Your task to perform on an android device: refresh tabs in the chrome app Image 0: 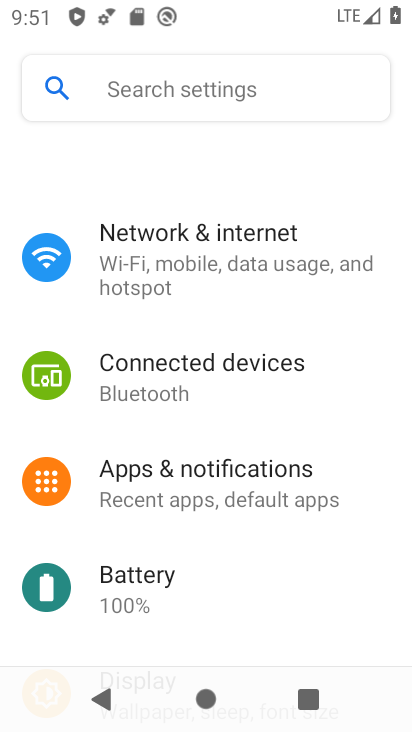
Step 0: press home button
Your task to perform on an android device: refresh tabs in the chrome app Image 1: 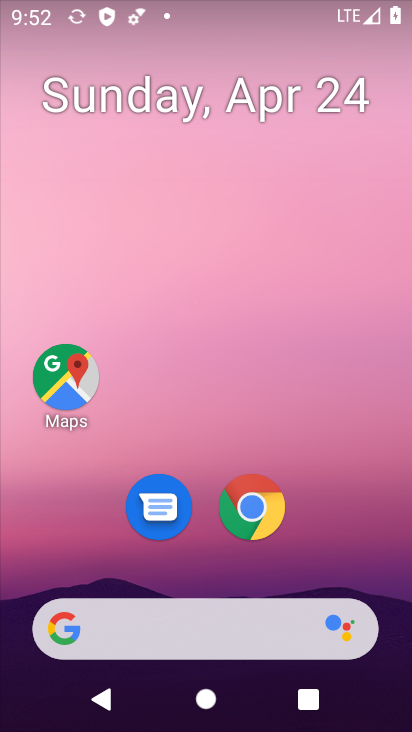
Step 1: click (251, 505)
Your task to perform on an android device: refresh tabs in the chrome app Image 2: 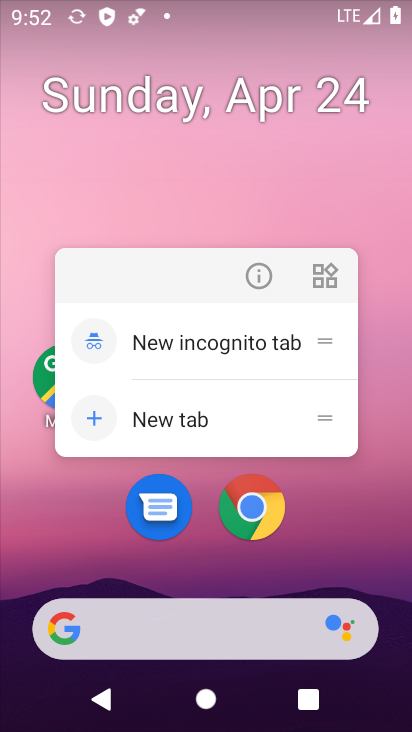
Step 2: click (253, 275)
Your task to perform on an android device: refresh tabs in the chrome app Image 3: 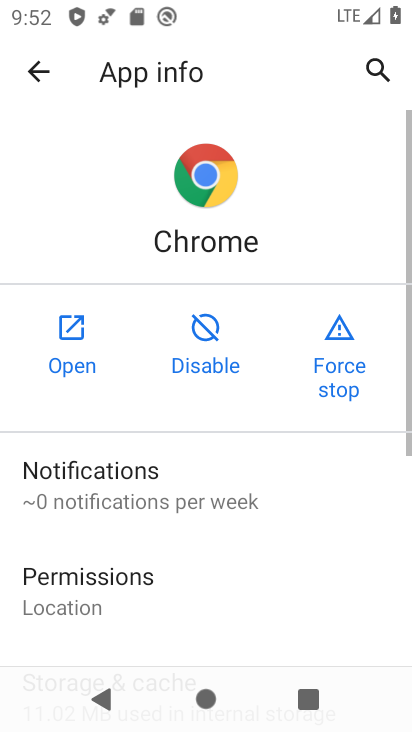
Step 3: click (94, 342)
Your task to perform on an android device: refresh tabs in the chrome app Image 4: 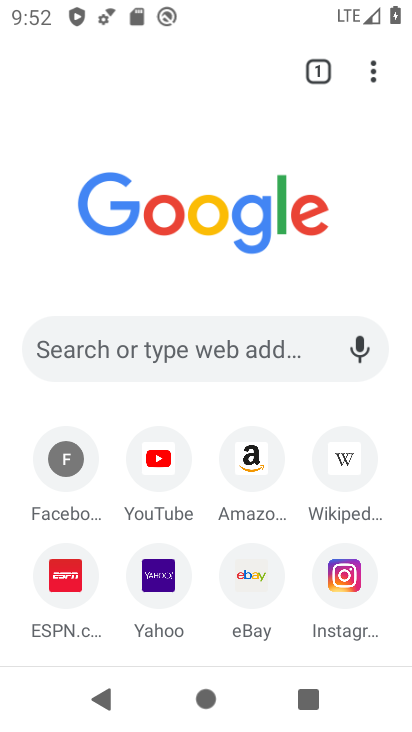
Step 4: click (365, 74)
Your task to perform on an android device: refresh tabs in the chrome app Image 5: 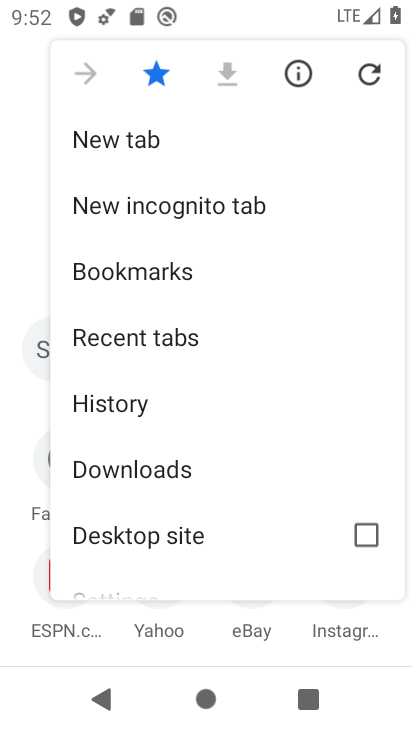
Step 5: click (370, 76)
Your task to perform on an android device: refresh tabs in the chrome app Image 6: 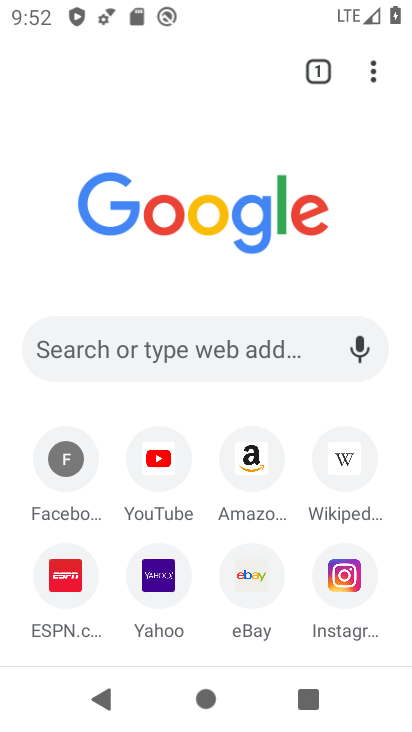
Step 6: task complete